Your task to perform on an android device: turn on showing notifications on the lock screen Image 0: 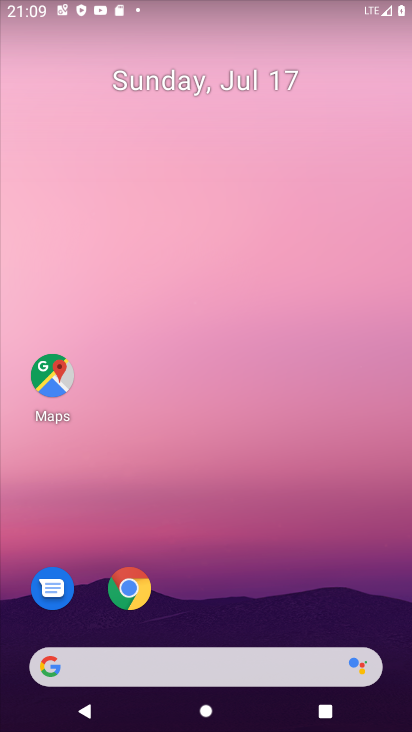
Step 0: press home button
Your task to perform on an android device: turn on showing notifications on the lock screen Image 1: 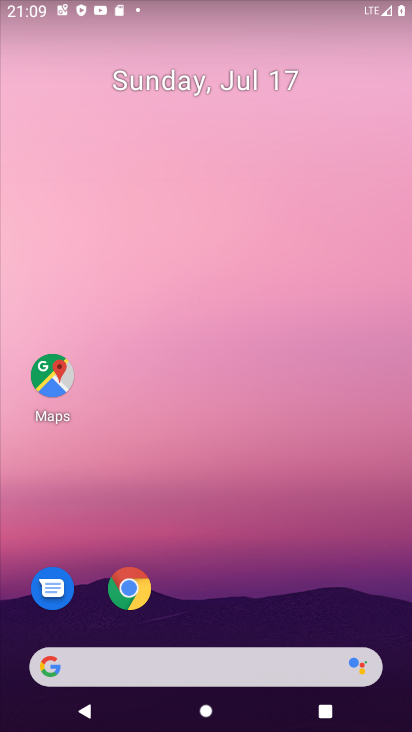
Step 1: drag from (215, 603) to (239, 164)
Your task to perform on an android device: turn on showing notifications on the lock screen Image 2: 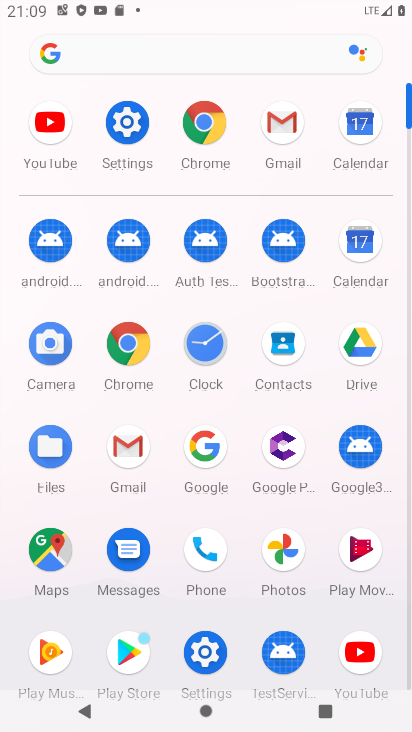
Step 2: click (110, 135)
Your task to perform on an android device: turn on showing notifications on the lock screen Image 3: 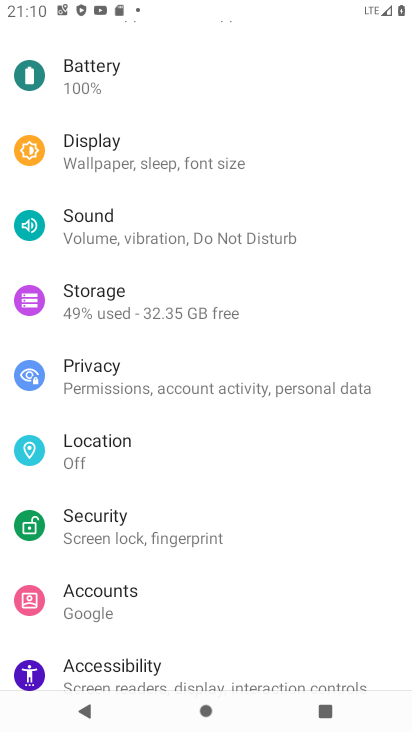
Step 3: drag from (190, 604) to (251, 188)
Your task to perform on an android device: turn on showing notifications on the lock screen Image 4: 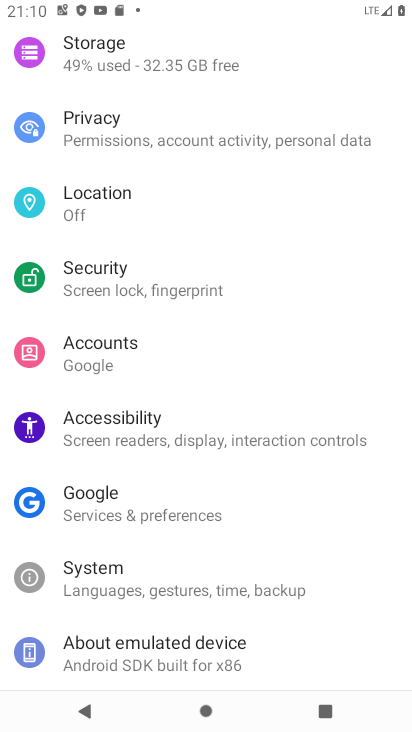
Step 4: drag from (156, 190) to (157, 680)
Your task to perform on an android device: turn on showing notifications on the lock screen Image 5: 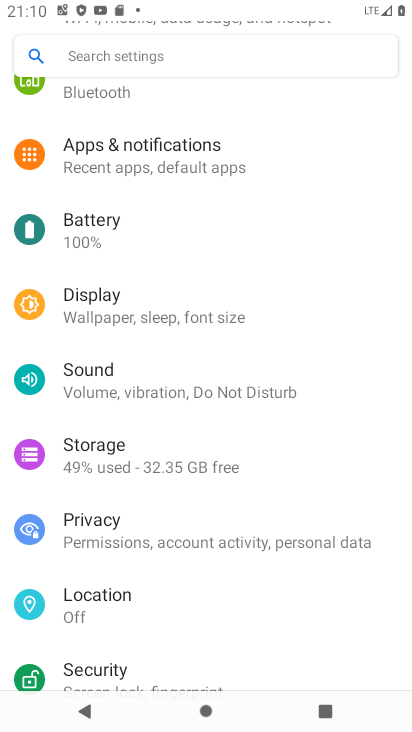
Step 5: drag from (115, 193) to (87, 613)
Your task to perform on an android device: turn on showing notifications on the lock screen Image 6: 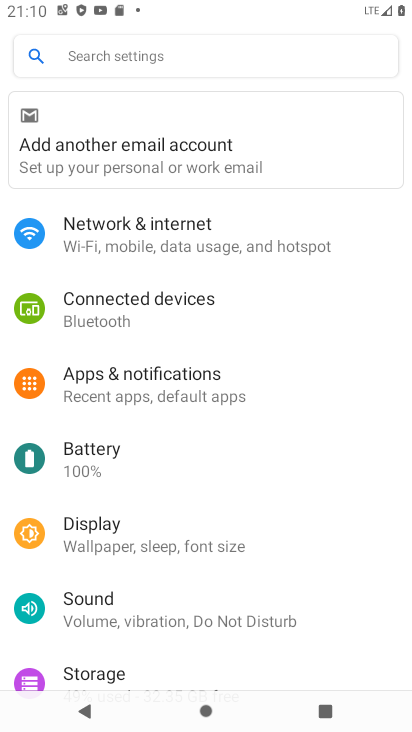
Step 6: click (103, 376)
Your task to perform on an android device: turn on showing notifications on the lock screen Image 7: 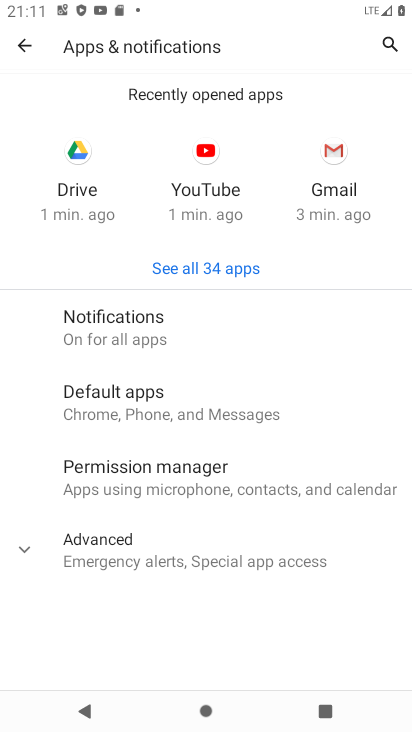
Step 7: click (117, 328)
Your task to perform on an android device: turn on showing notifications on the lock screen Image 8: 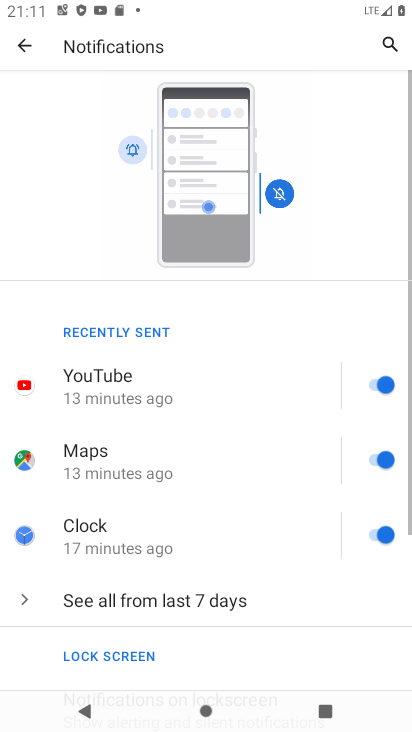
Step 8: drag from (139, 589) to (198, 257)
Your task to perform on an android device: turn on showing notifications on the lock screen Image 9: 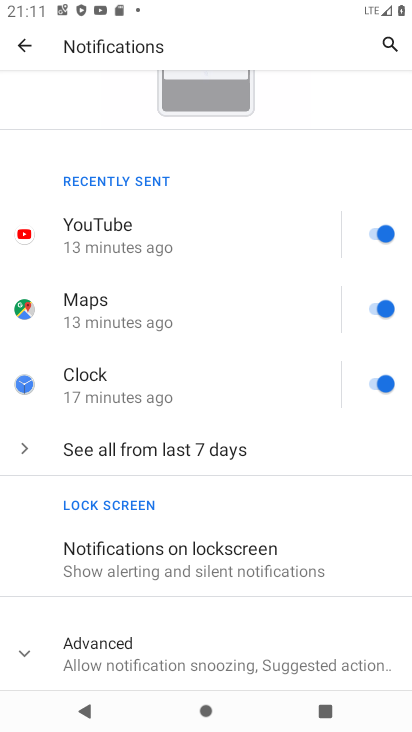
Step 9: click (149, 657)
Your task to perform on an android device: turn on showing notifications on the lock screen Image 10: 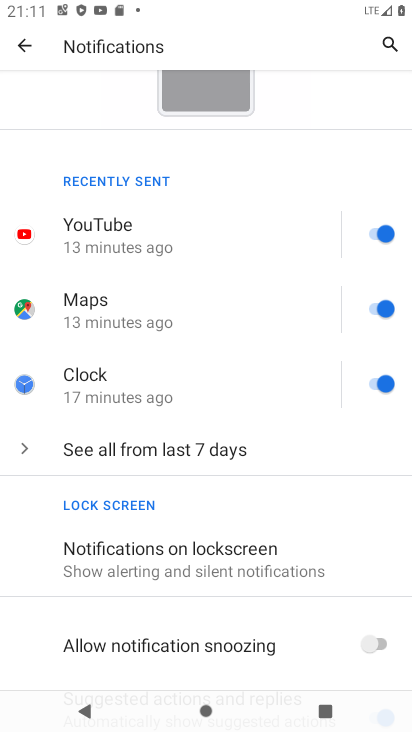
Step 10: drag from (152, 640) to (163, 454)
Your task to perform on an android device: turn on showing notifications on the lock screen Image 11: 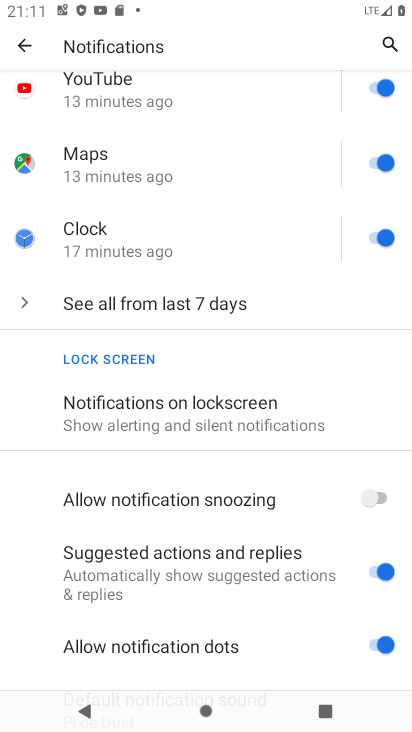
Step 11: drag from (129, 653) to (168, 465)
Your task to perform on an android device: turn on showing notifications on the lock screen Image 12: 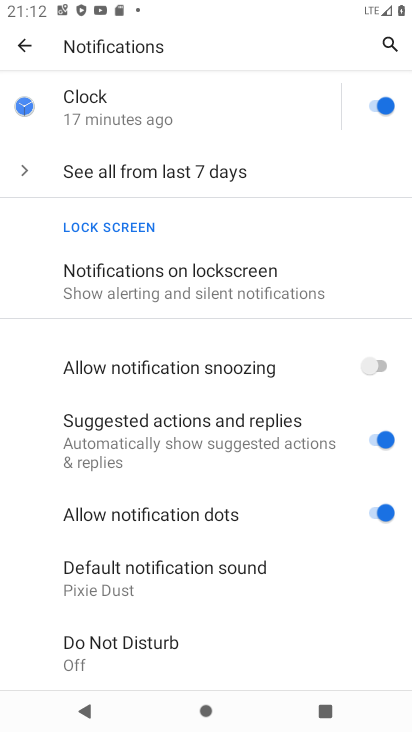
Step 12: click (232, 299)
Your task to perform on an android device: turn on showing notifications on the lock screen Image 13: 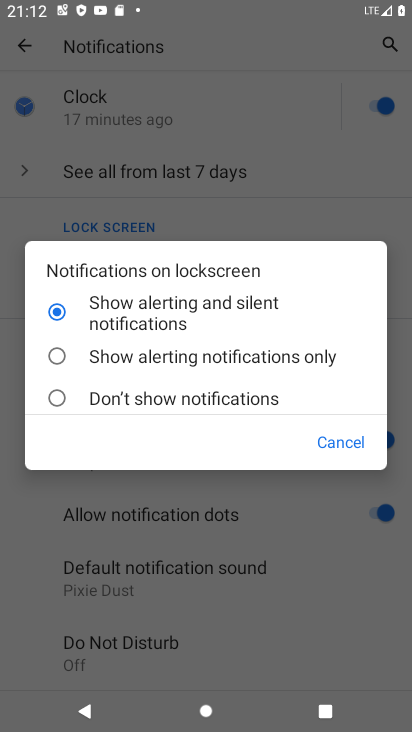
Step 13: click (175, 358)
Your task to perform on an android device: turn on showing notifications on the lock screen Image 14: 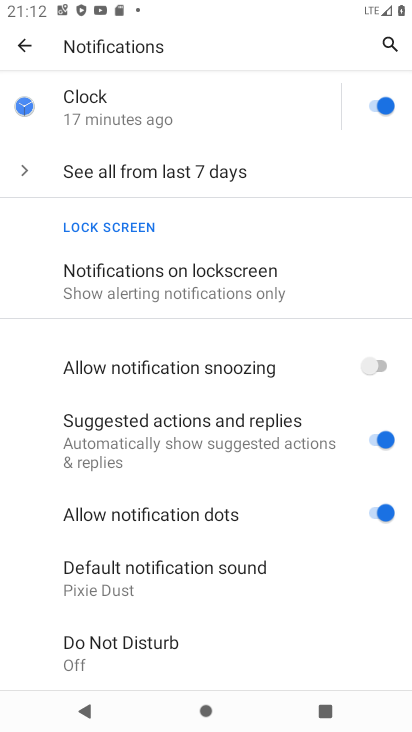
Step 14: task complete